Your task to perform on an android device: toggle pop-ups in chrome Image 0: 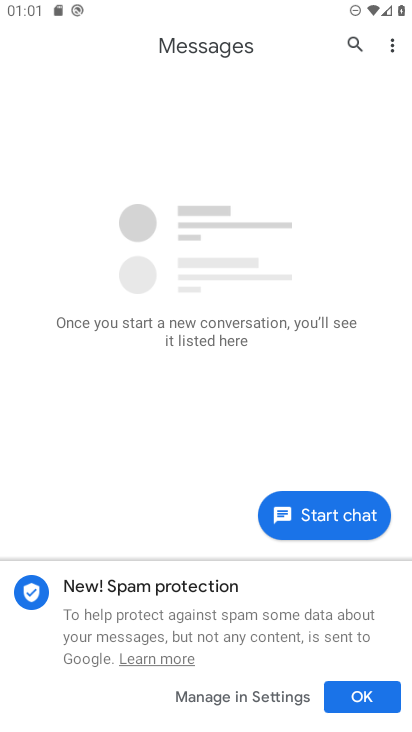
Step 0: press home button
Your task to perform on an android device: toggle pop-ups in chrome Image 1: 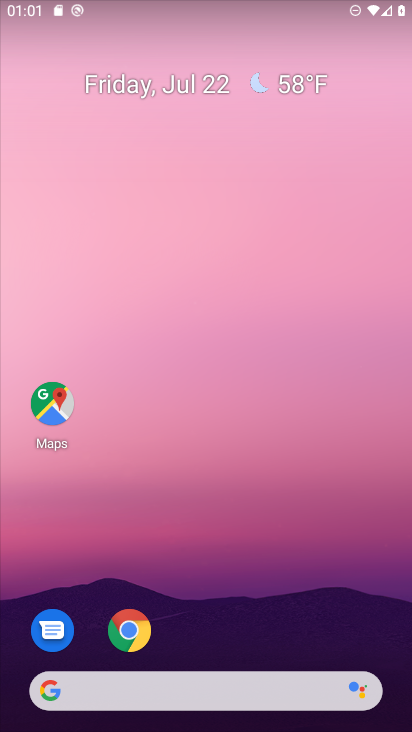
Step 1: drag from (251, 480) to (266, 137)
Your task to perform on an android device: toggle pop-ups in chrome Image 2: 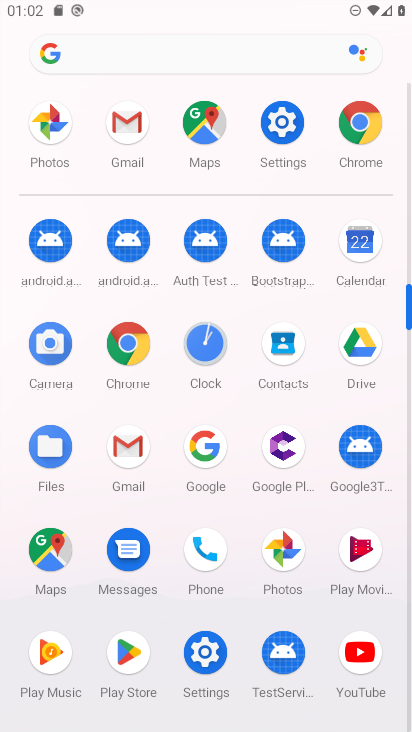
Step 2: click (362, 131)
Your task to perform on an android device: toggle pop-ups in chrome Image 3: 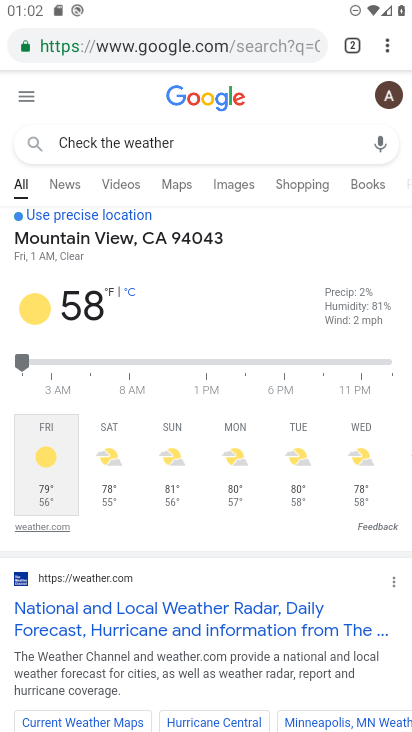
Step 3: drag from (383, 42) to (254, 508)
Your task to perform on an android device: toggle pop-ups in chrome Image 4: 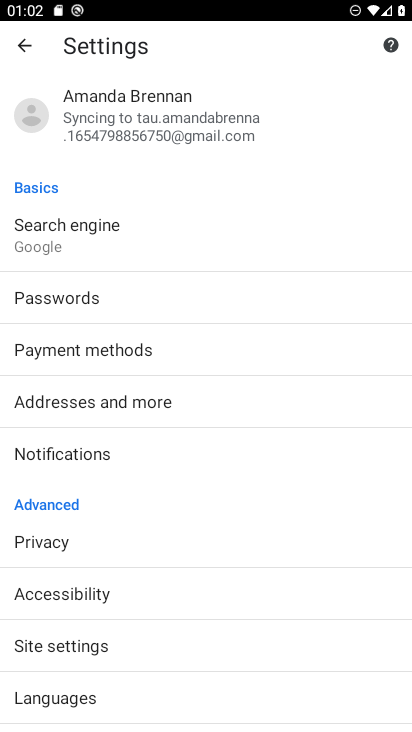
Step 4: drag from (239, 651) to (262, 329)
Your task to perform on an android device: toggle pop-ups in chrome Image 5: 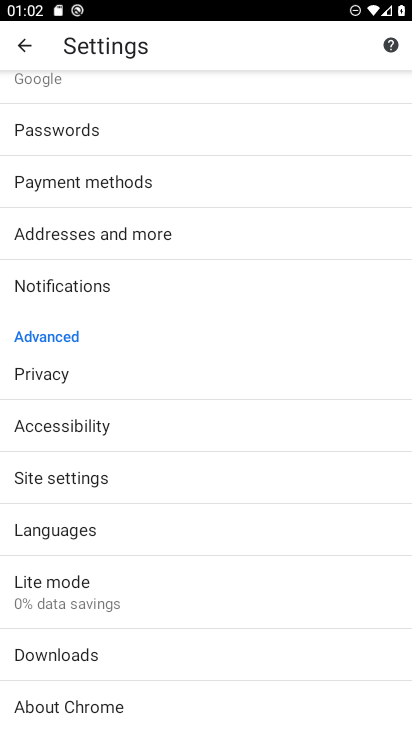
Step 5: click (52, 477)
Your task to perform on an android device: toggle pop-ups in chrome Image 6: 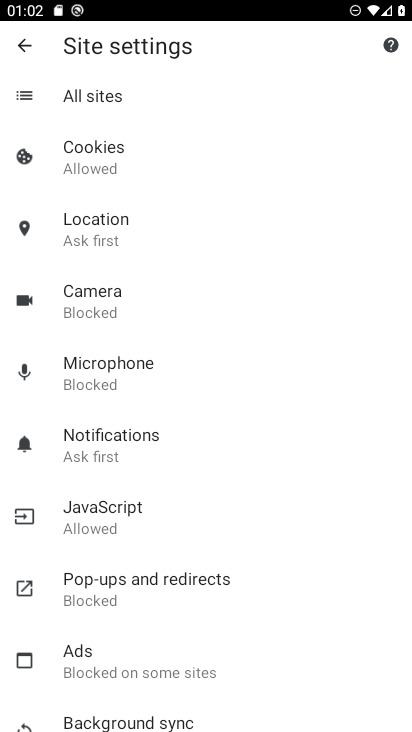
Step 6: click (90, 575)
Your task to perform on an android device: toggle pop-ups in chrome Image 7: 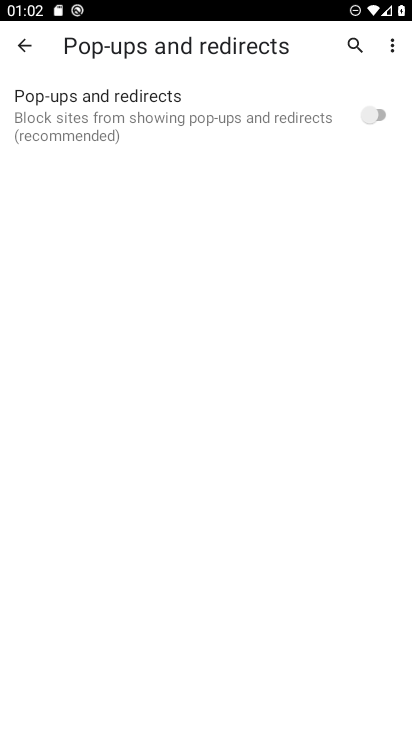
Step 7: click (220, 104)
Your task to perform on an android device: toggle pop-ups in chrome Image 8: 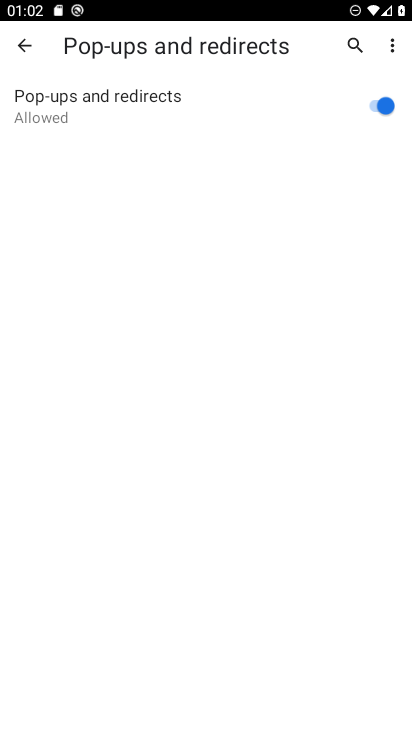
Step 8: task complete